Your task to perform on an android device: Open the map Image 0: 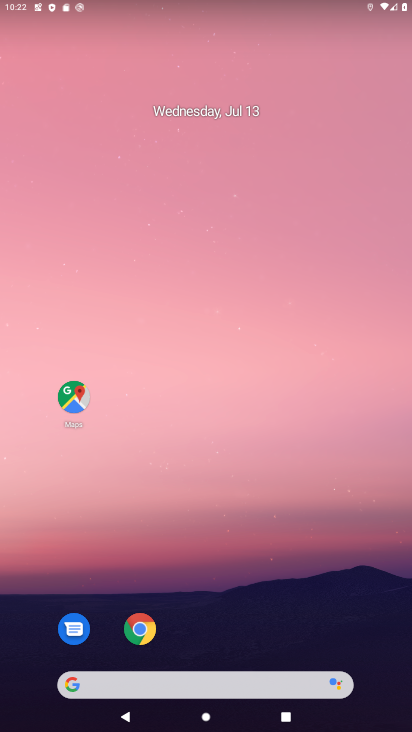
Step 0: drag from (229, 628) to (251, 187)
Your task to perform on an android device: Open the map Image 1: 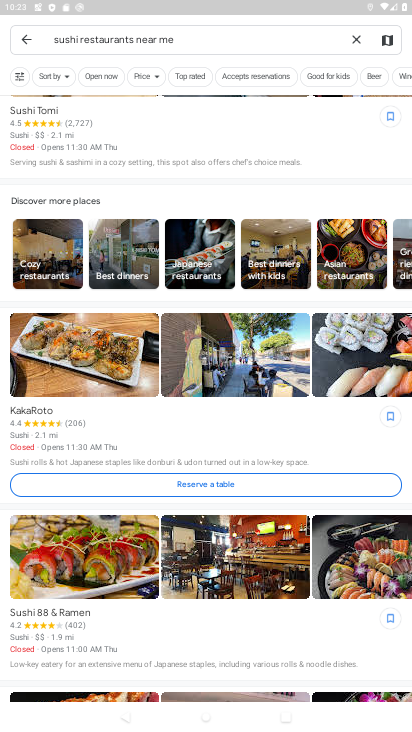
Step 1: click (25, 42)
Your task to perform on an android device: Open the map Image 2: 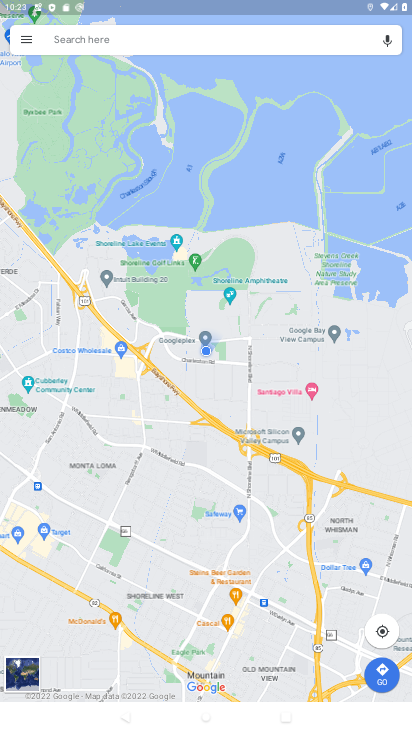
Step 2: task complete